Your task to perform on an android device: open device folders in google photos Image 0: 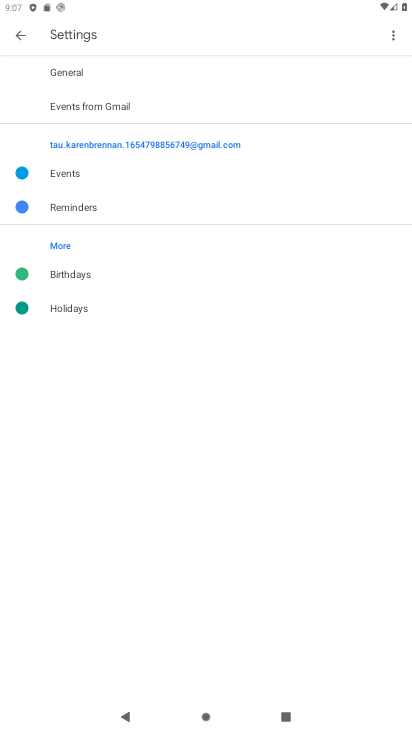
Step 0: press home button
Your task to perform on an android device: open device folders in google photos Image 1: 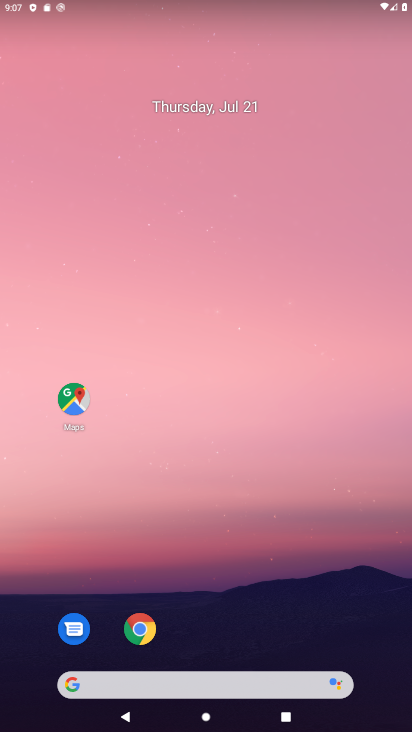
Step 1: drag from (200, 600) to (160, 172)
Your task to perform on an android device: open device folders in google photos Image 2: 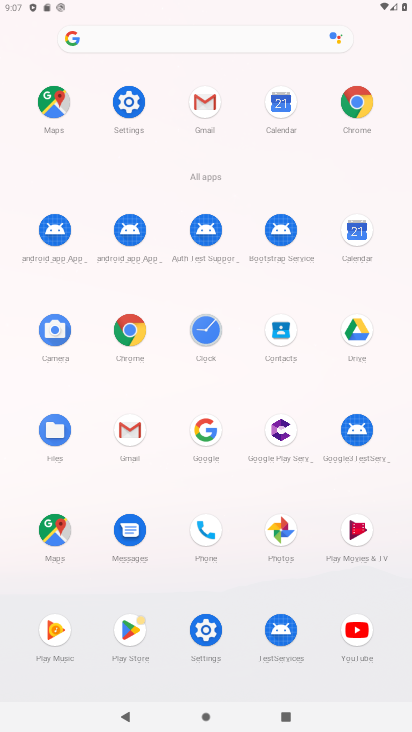
Step 2: click (277, 530)
Your task to perform on an android device: open device folders in google photos Image 3: 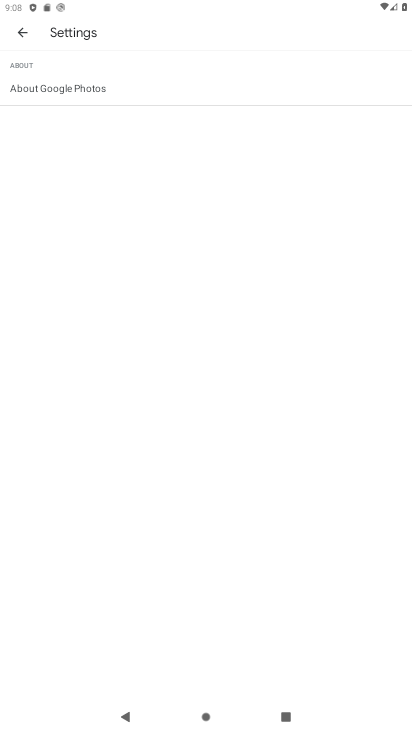
Step 3: click (28, 34)
Your task to perform on an android device: open device folders in google photos Image 4: 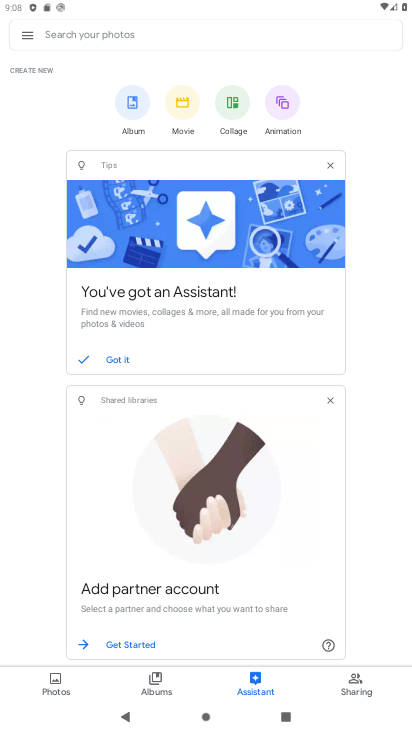
Step 4: click (28, 34)
Your task to perform on an android device: open device folders in google photos Image 5: 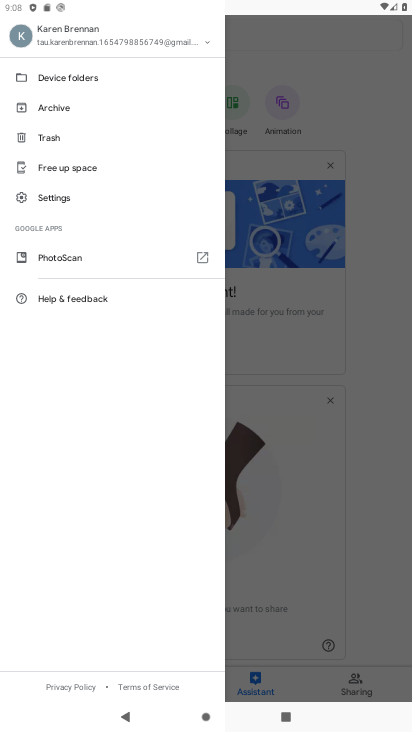
Step 5: task complete